Your task to perform on an android device: Go to wifi settings Image 0: 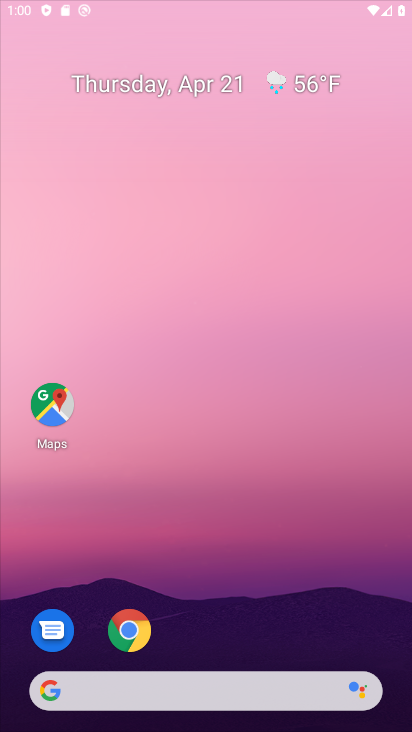
Step 0: click (228, 156)
Your task to perform on an android device: Go to wifi settings Image 1: 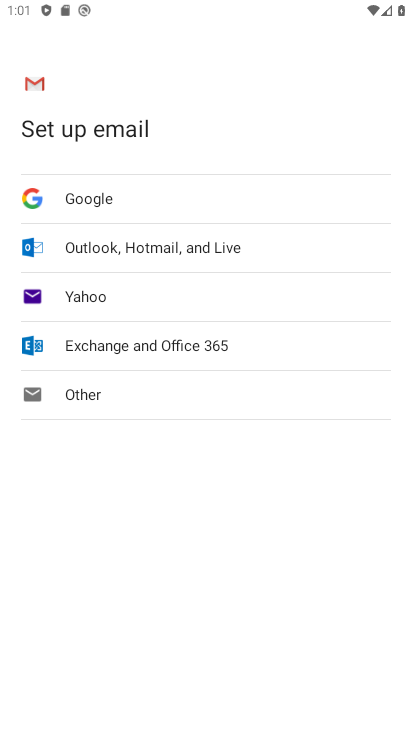
Step 1: press home button
Your task to perform on an android device: Go to wifi settings Image 2: 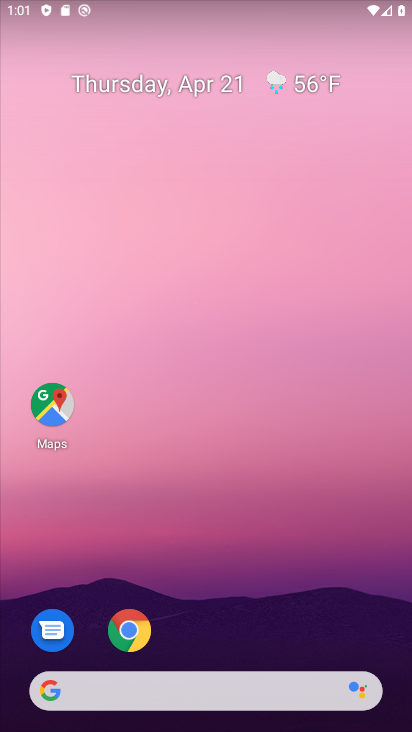
Step 2: drag from (201, 636) to (150, 93)
Your task to perform on an android device: Go to wifi settings Image 3: 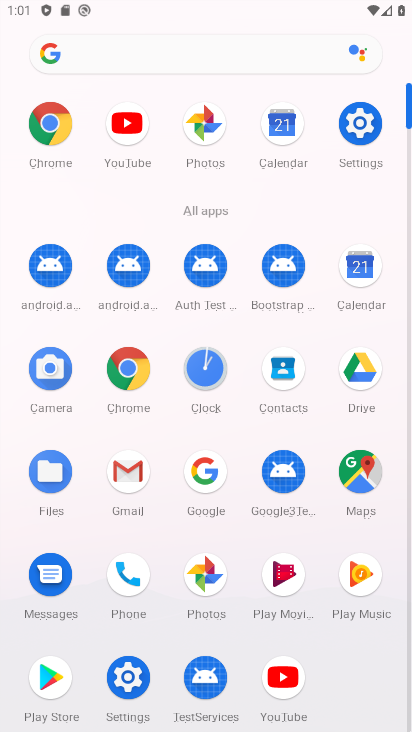
Step 3: click (370, 127)
Your task to perform on an android device: Go to wifi settings Image 4: 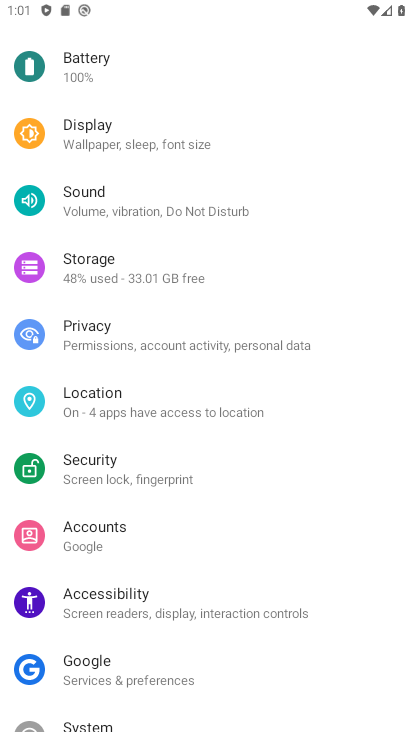
Step 4: drag from (207, 71) to (228, 428)
Your task to perform on an android device: Go to wifi settings Image 5: 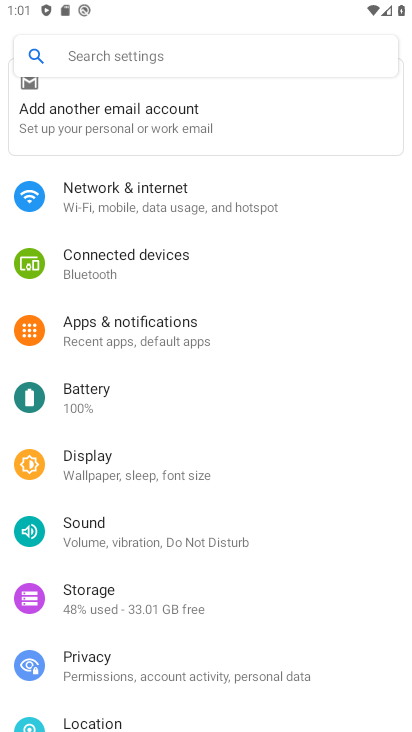
Step 5: click (172, 185)
Your task to perform on an android device: Go to wifi settings Image 6: 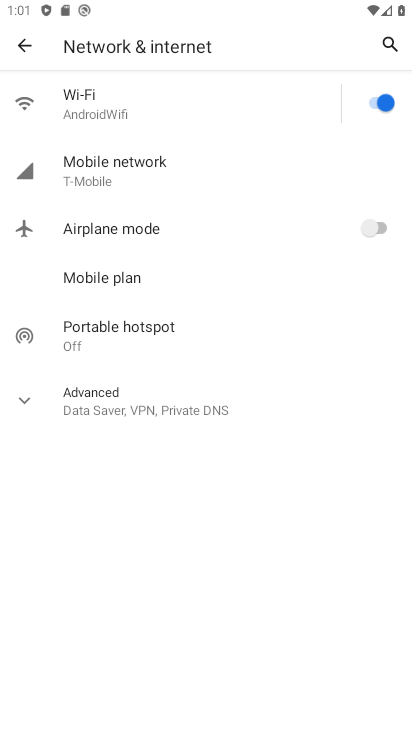
Step 6: click (189, 109)
Your task to perform on an android device: Go to wifi settings Image 7: 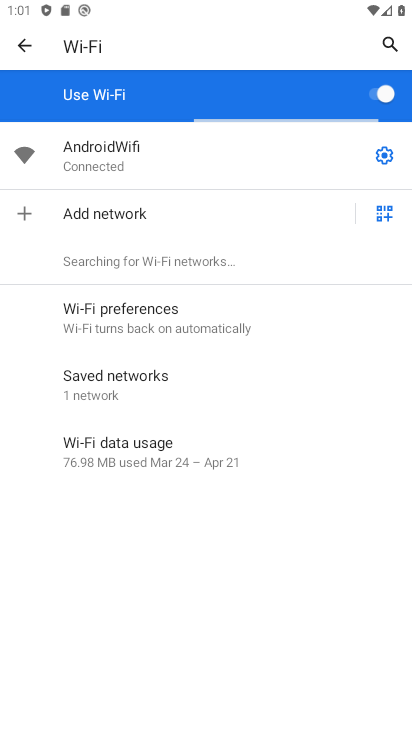
Step 7: task complete